Your task to perform on an android device: Open sound settings Image 0: 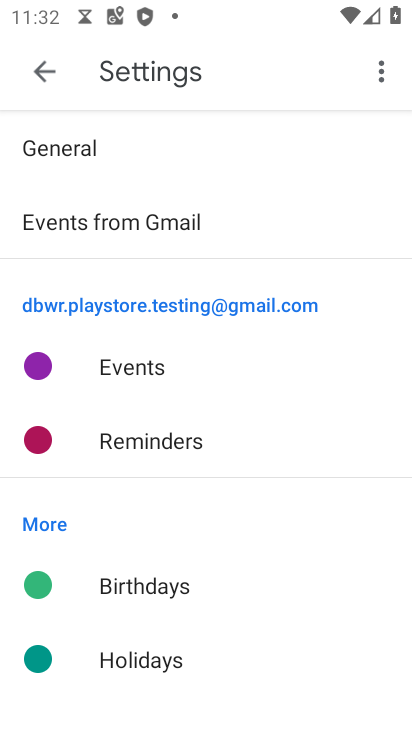
Step 0: press home button
Your task to perform on an android device: Open sound settings Image 1: 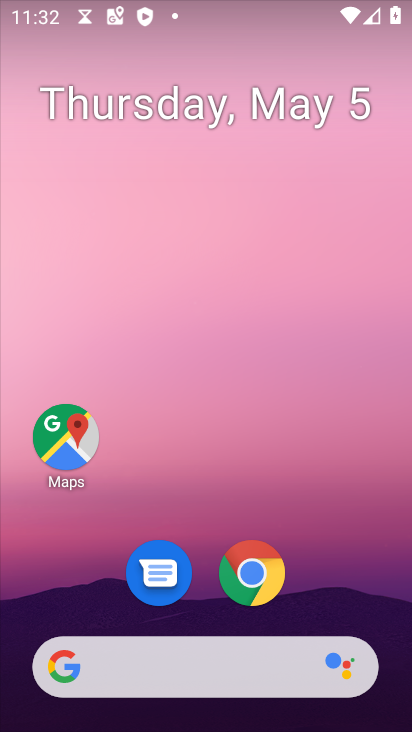
Step 1: drag from (325, 466) to (328, 200)
Your task to perform on an android device: Open sound settings Image 2: 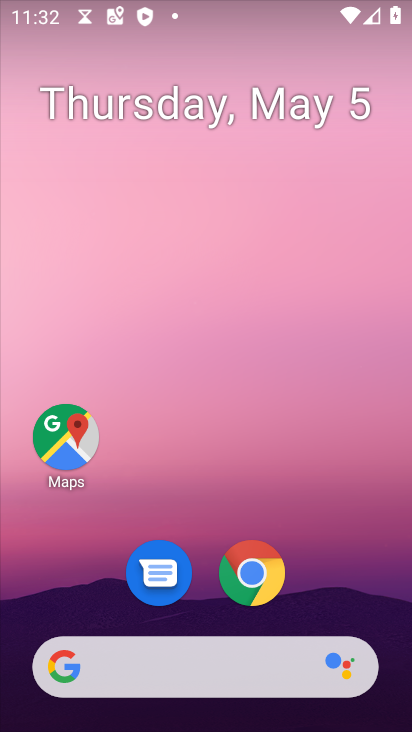
Step 2: drag from (315, 602) to (331, 191)
Your task to perform on an android device: Open sound settings Image 3: 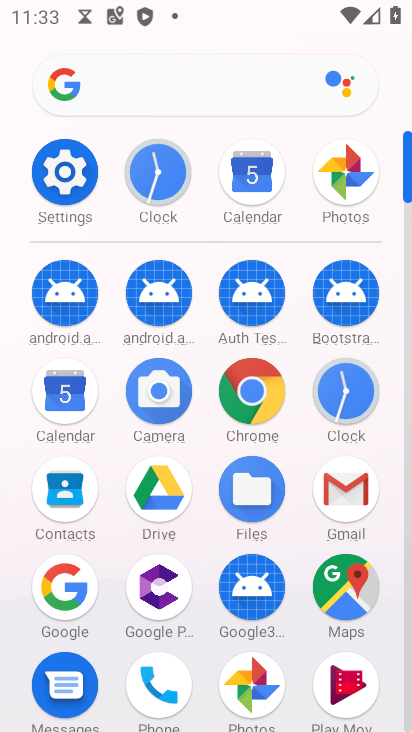
Step 3: click (60, 180)
Your task to perform on an android device: Open sound settings Image 4: 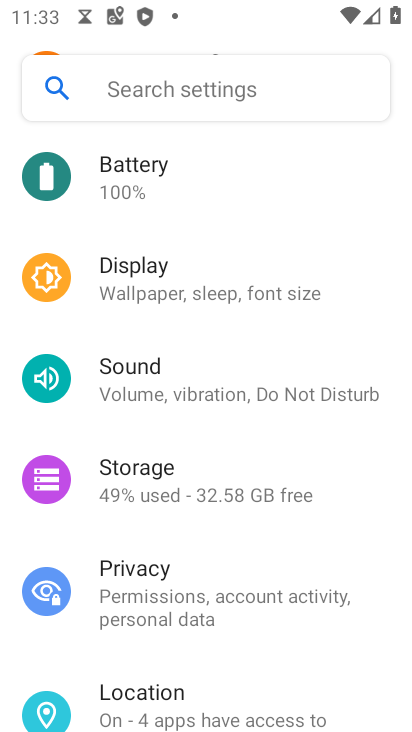
Step 4: click (214, 381)
Your task to perform on an android device: Open sound settings Image 5: 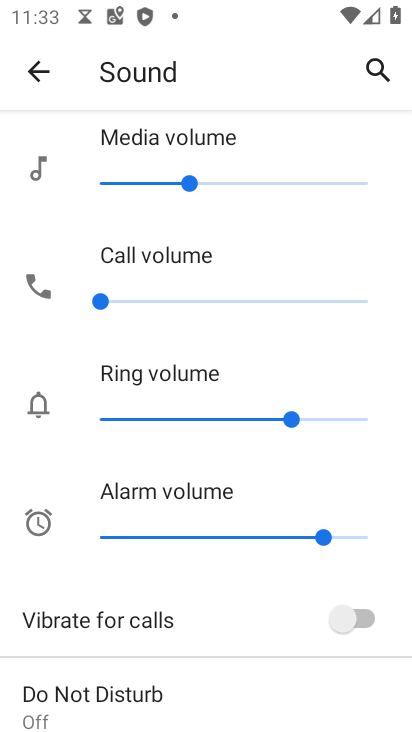
Step 5: task complete